Your task to perform on an android device: Is it going to rain tomorrow? Image 0: 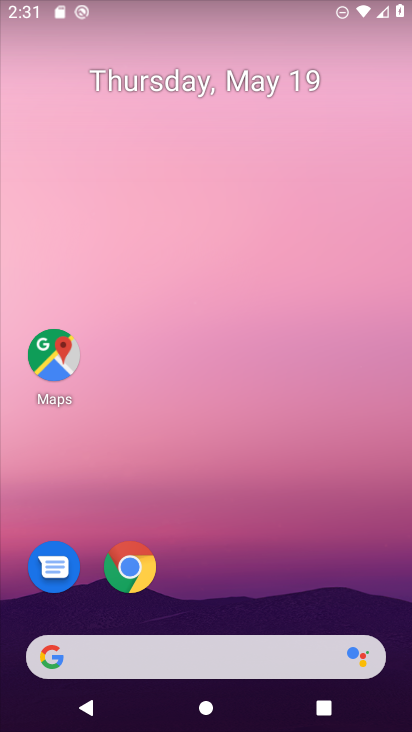
Step 0: click (260, 657)
Your task to perform on an android device: Is it going to rain tomorrow? Image 1: 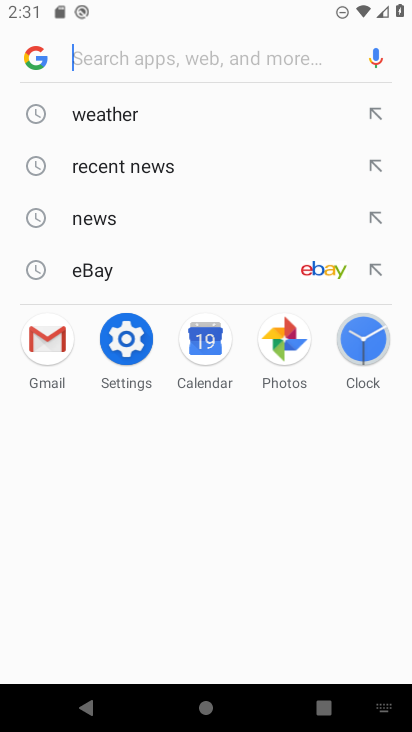
Step 1: click (97, 109)
Your task to perform on an android device: Is it going to rain tomorrow? Image 2: 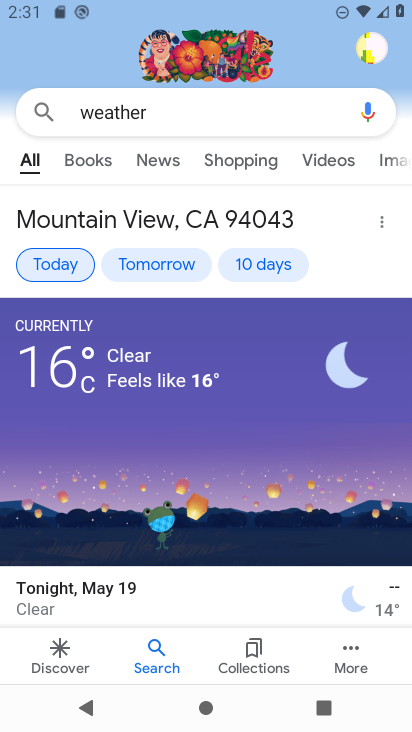
Step 2: click (75, 266)
Your task to perform on an android device: Is it going to rain tomorrow? Image 3: 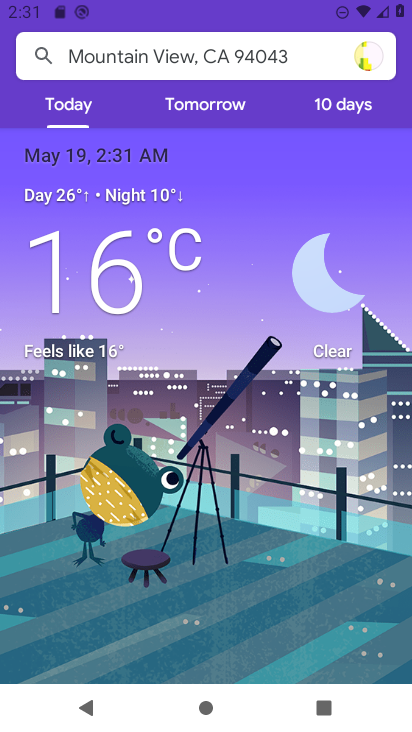
Step 3: click (226, 104)
Your task to perform on an android device: Is it going to rain tomorrow? Image 4: 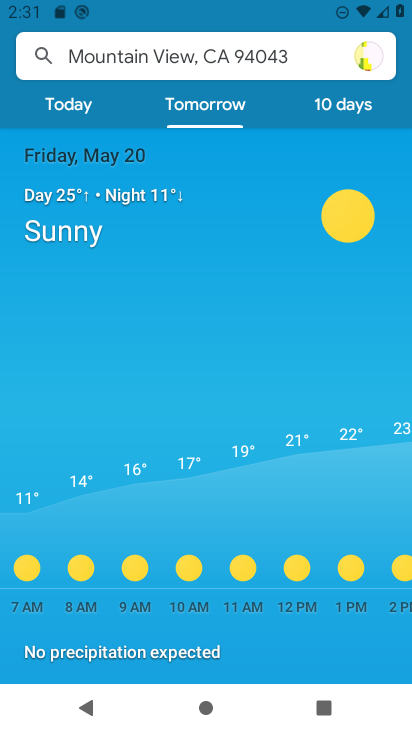
Step 4: task complete